Your task to perform on an android device: turn off improve location accuracy Image 0: 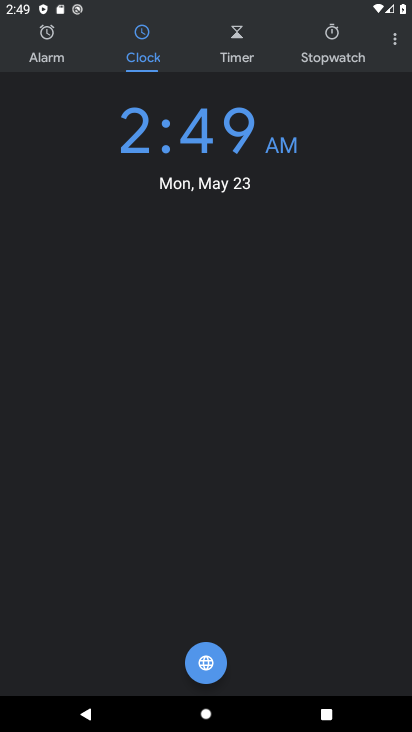
Step 0: press home button
Your task to perform on an android device: turn off improve location accuracy Image 1: 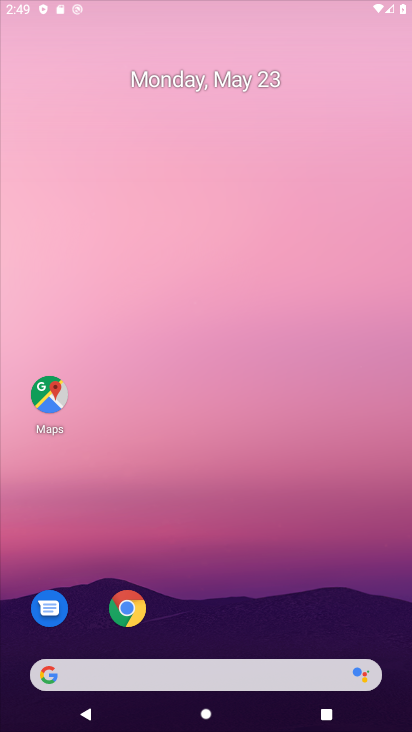
Step 1: drag from (364, 603) to (308, 162)
Your task to perform on an android device: turn off improve location accuracy Image 2: 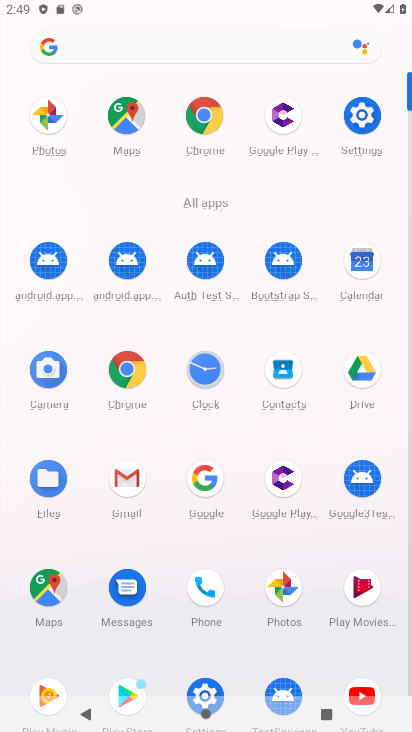
Step 2: click (363, 129)
Your task to perform on an android device: turn off improve location accuracy Image 3: 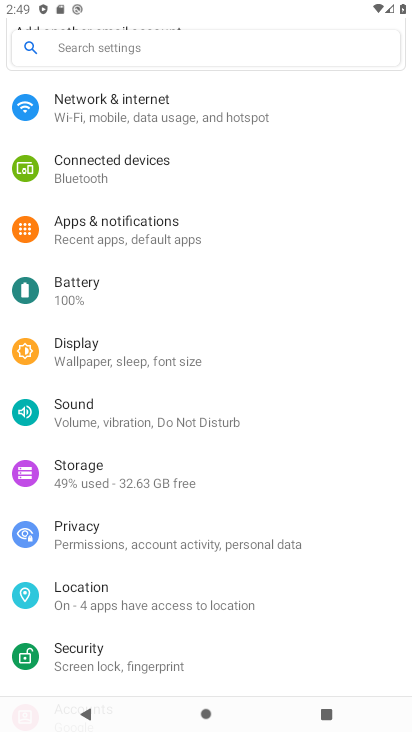
Step 3: click (153, 599)
Your task to perform on an android device: turn off improve location accuracy Image 4: 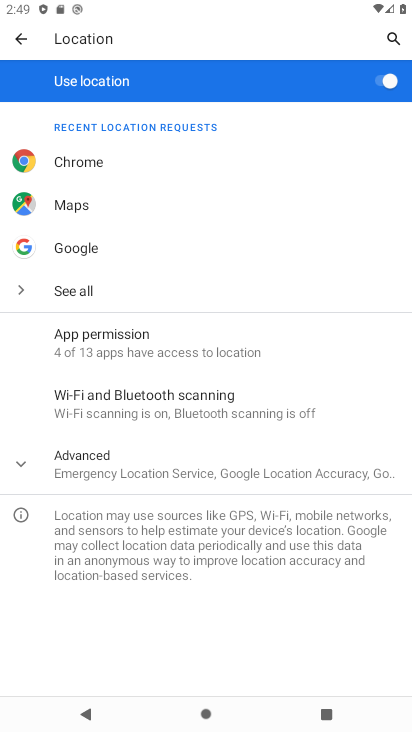
Step 4: click (214, 476)
Your task to perform on an android device: turn off improve location accuracy Image 5: 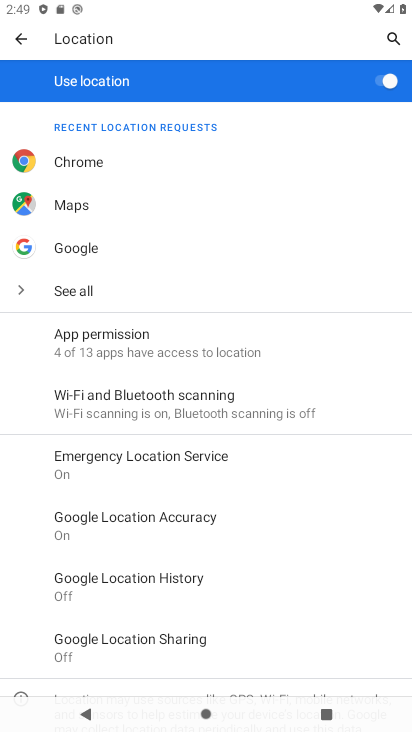
Step 5: click (177, 529)
Your task to perform on an android device: turn off improve location accuracy Image 6: 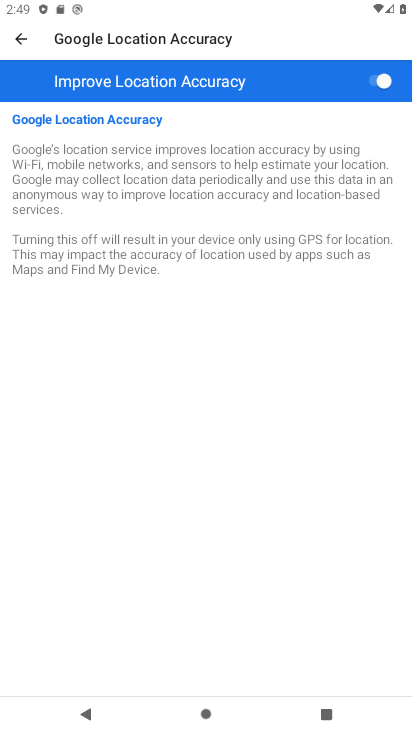
Step 6: click (374, 89)
Your task to perform on an android device: turn off improve location accuracy Image 7: 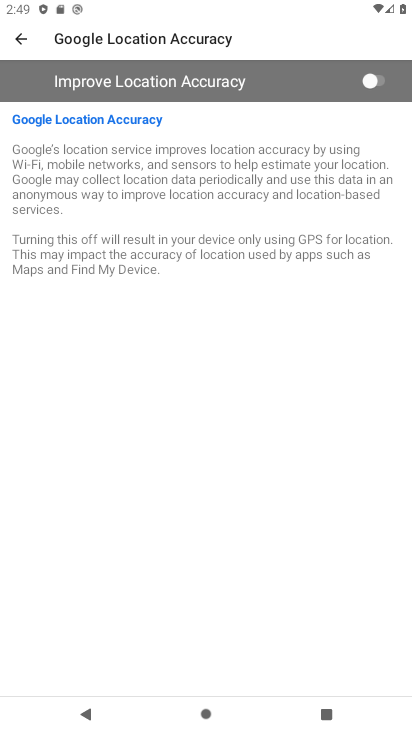
Step 7: task complete